Your task to perform on an android device: set an alarm Image 0: 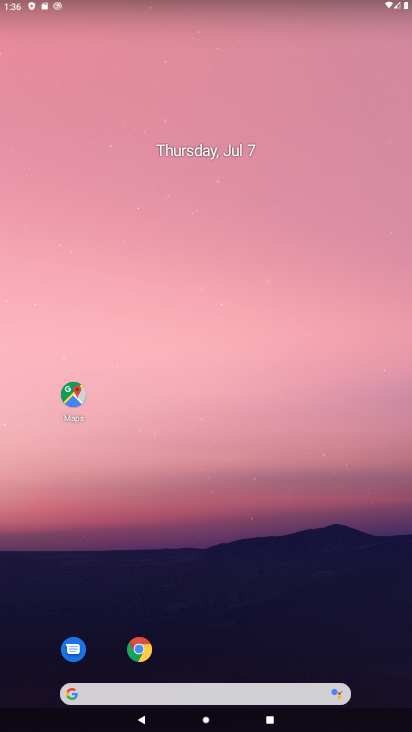
Step 0: drag from (389, 693) to (350, 87)
Your task to perform on an android device: set an alarm Image 1: 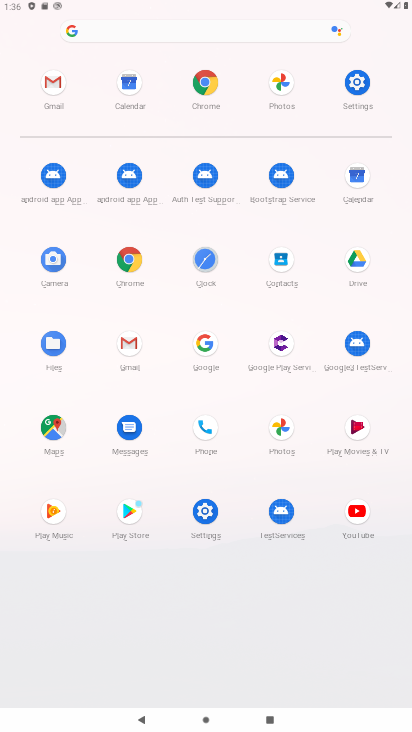
Step 1: click (204, 260)
Your task to perform on an android device: set an alarm Image 2: 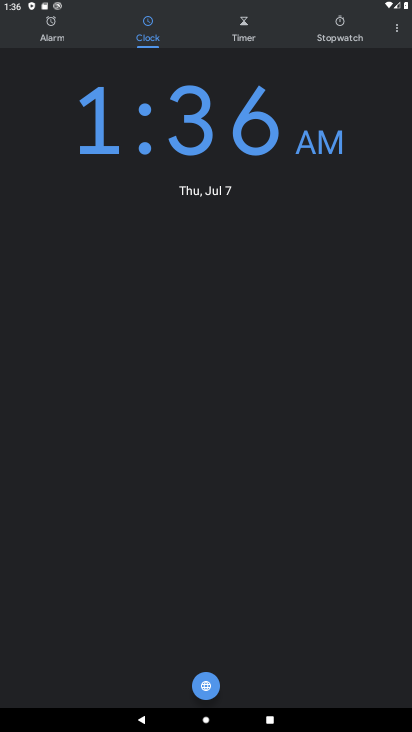
Step 2: click (52, 26)
Your task to perform on an android device: set an alarm Image 3: 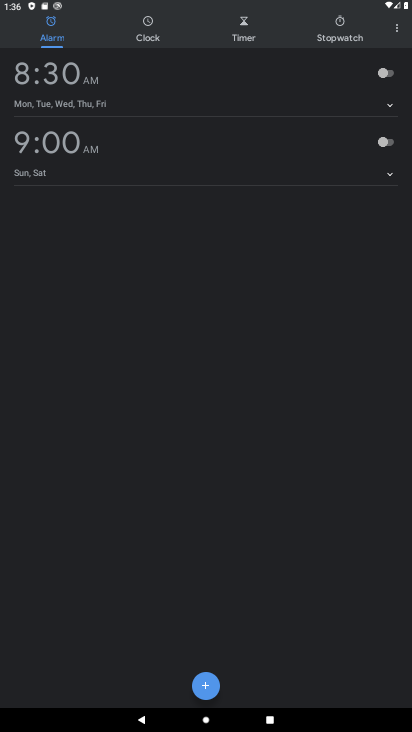
Step 3: click (44, 85)
Your task to perform on an android device: set an alarm Image 4: 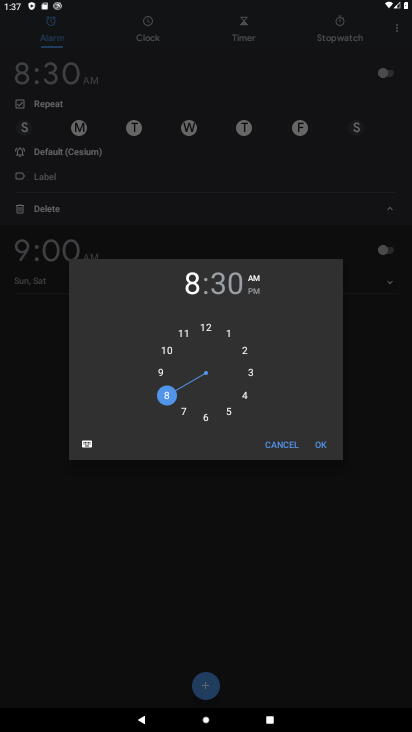
Step 4: click (207, 418)
Your task to perform on an android device: set an alarm Image 5: 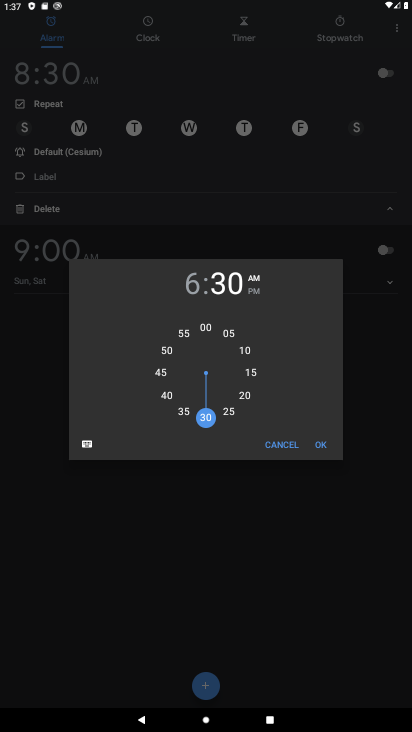
Step 5: click (246, 372)
Your task to perform on an android device: set an alarm Image 6: 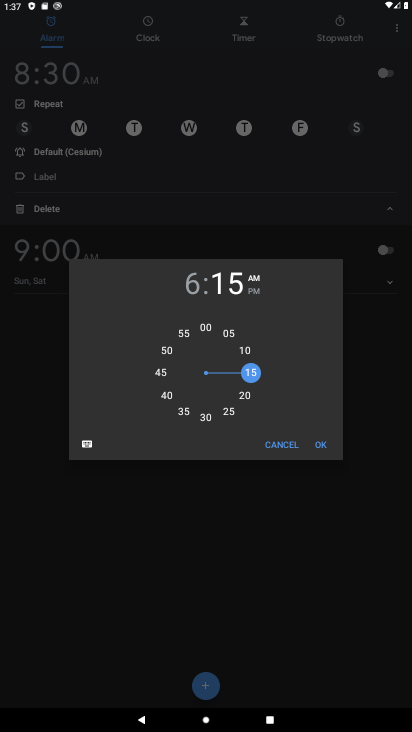
Step 6: click (323, 448)
Your task to perform on an android device: set an alarm Image 7: 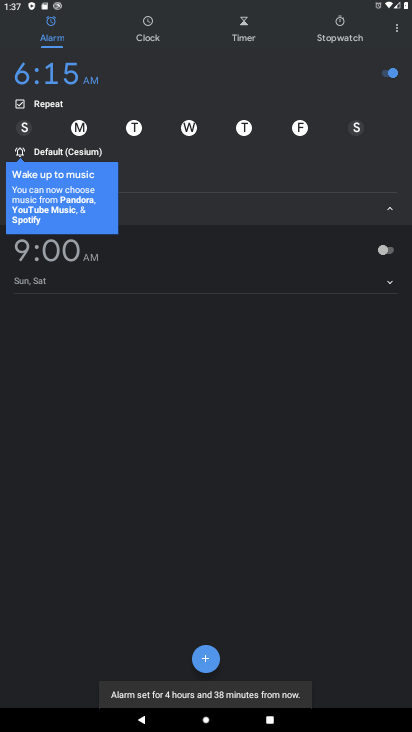
Step 7: click (363, 131)
Your task to perform on an android device: set an alarm Image 8: 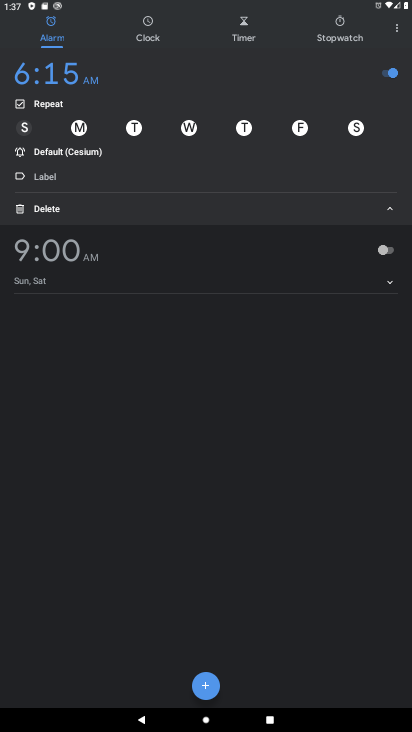
Step 8: click (389, 211)
Your task to perform on an android device: set an alarm Image 9: 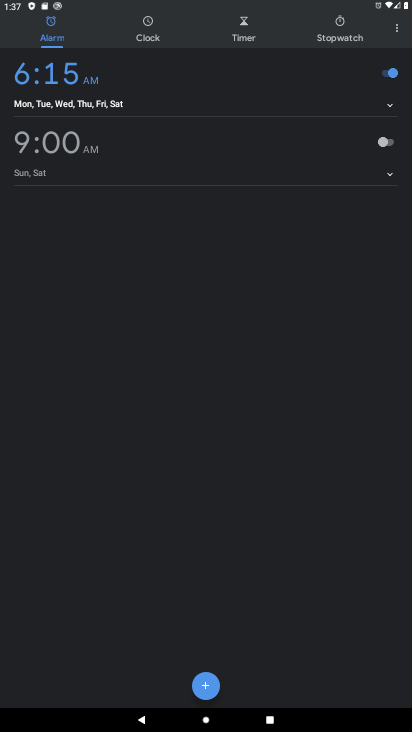
Step 9: task complete